Your task to perform on an android device: add a contact in the contacts app Image 0: 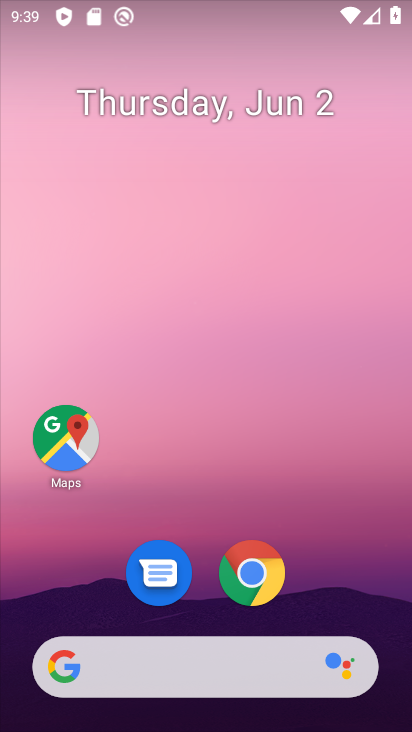
Step 0: drag from (323, 571) to (246, 212)
Your task to perform on an android device: add a contact in the contacts app Image 1: 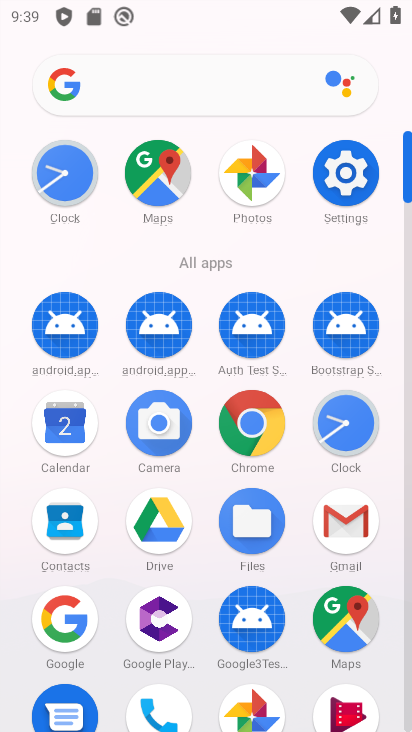
Step 1: click (69, 530)
Your task to perform on an android device: add a contact in the contacts app Image 2: 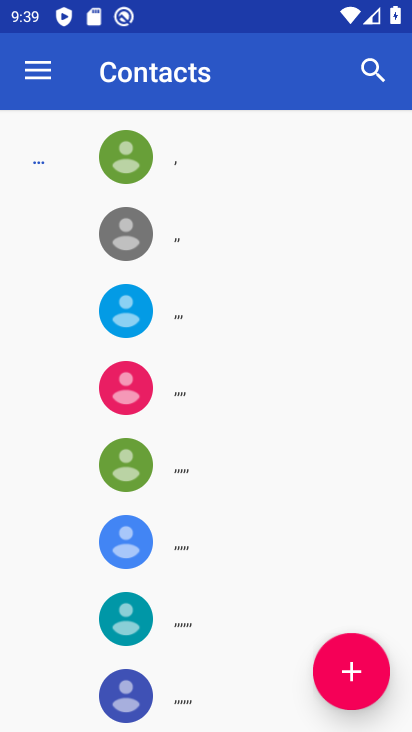
Step 2: click (363, 683)
Your task to perform on an android device: add a contact in the contacts app Image 3: 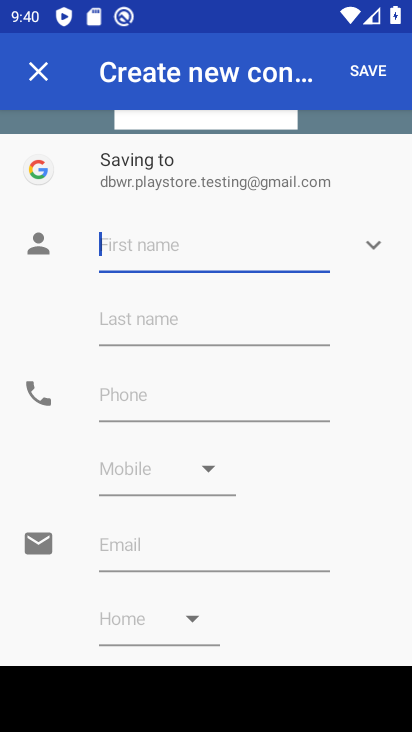
Step 3: type "gfdfhyf"
Your task to perform on an android device: add a contact in the contacts app Image 4: 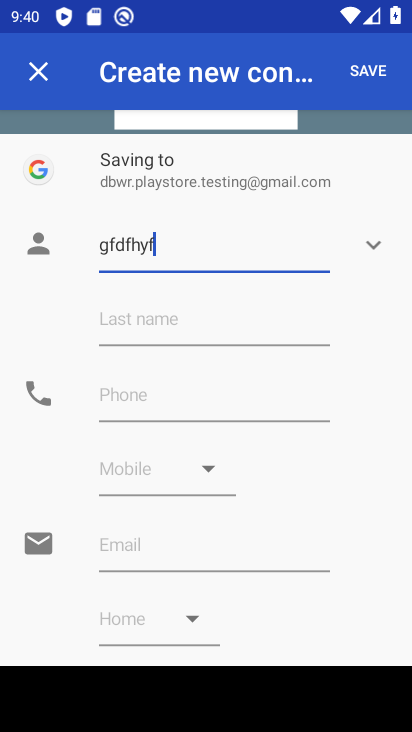
Step 4: click (191, 408)
Your task to perform on an android device: add a contact in the contacts app Image 5: 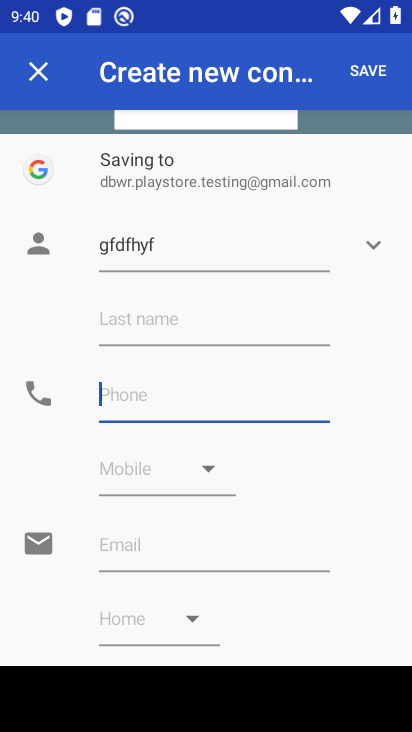
Step 5: type "54675787667"
Your task to perform on an android device: add a contact in the contacts app Image 6: 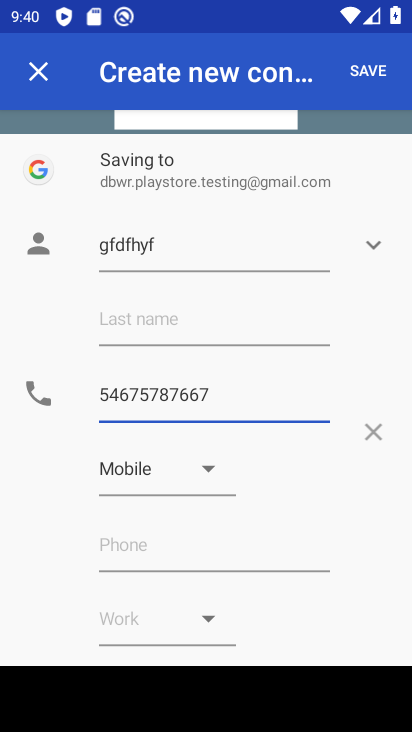
Step 6: click (365, 68)
Your task to perform on an android device: add a contact in the contacts app Image 7: 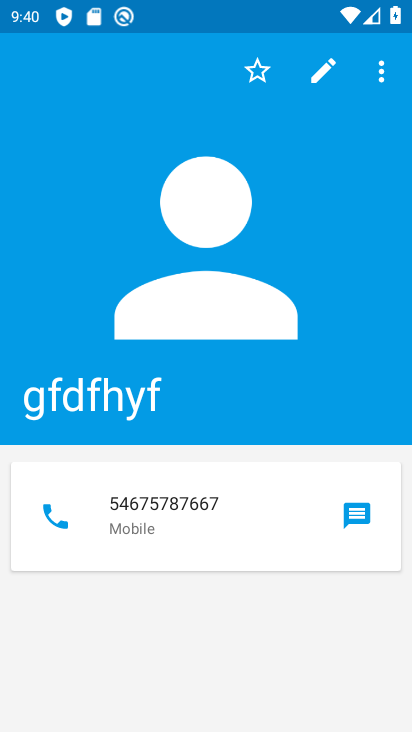
Step 7: task complete